Your task to perform on an android device: all mails in gmail Image 0: 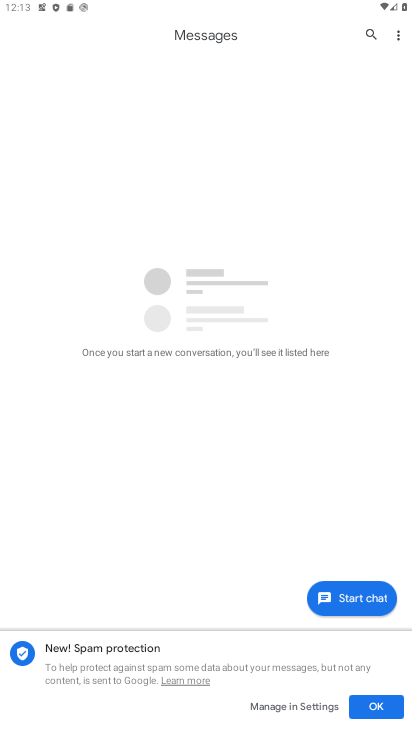
Step 0: press home button
Your task to perform on an android device: all mails in gmail Image 1: 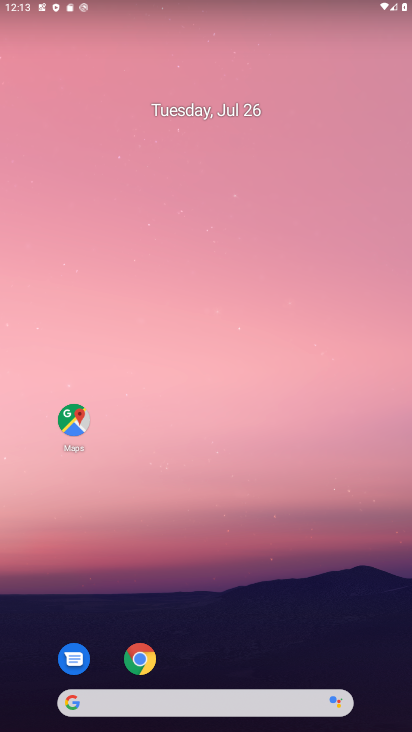
Step 1: drag from (217, 629) to (263, 433)
Your task to perform on an android device: all mails in gmail Image 2: 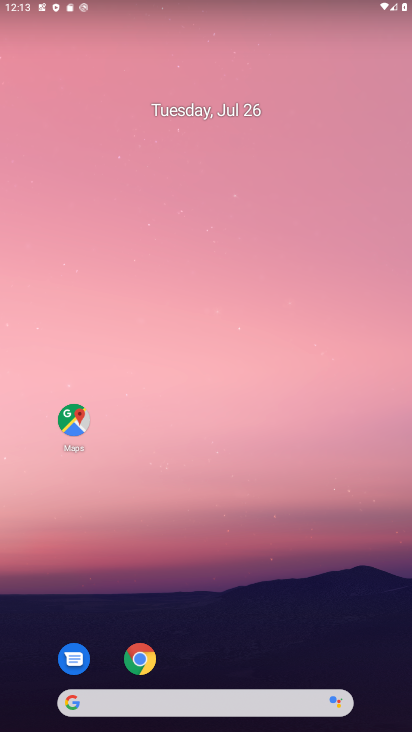
Step 2: drag from (223, 687) to (233, 307)
Your task to perform on an android device: all mails in gmail Image 3: 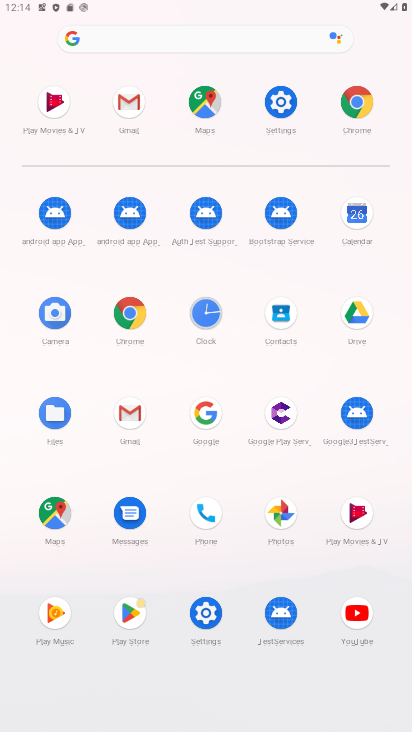
Step 3: click (132, 409)
Your task to perform on an android device: all mails in gmail Image 4: 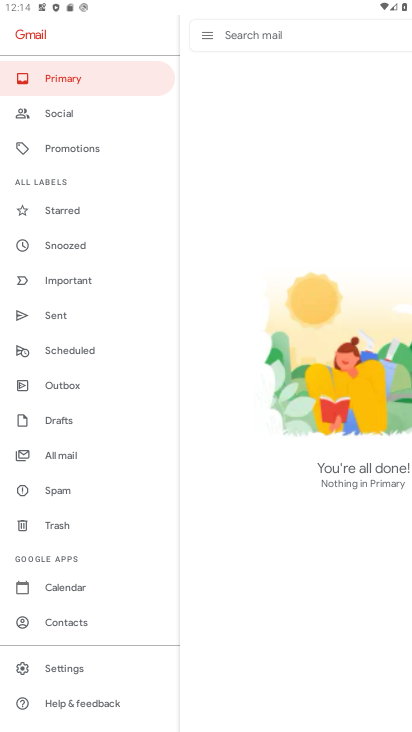
Step 4: click (60, 460)
Your task to perform on an android device: all mails in gmail Image 5: 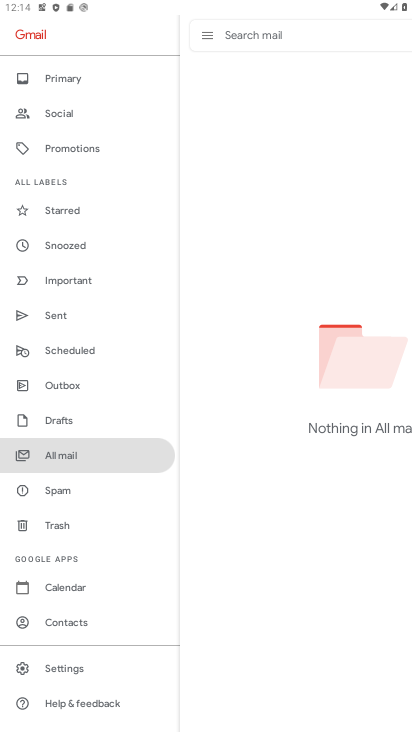
Step 5: task complete